Your task to perform on an android device: Go to ESPN.com Image 0: 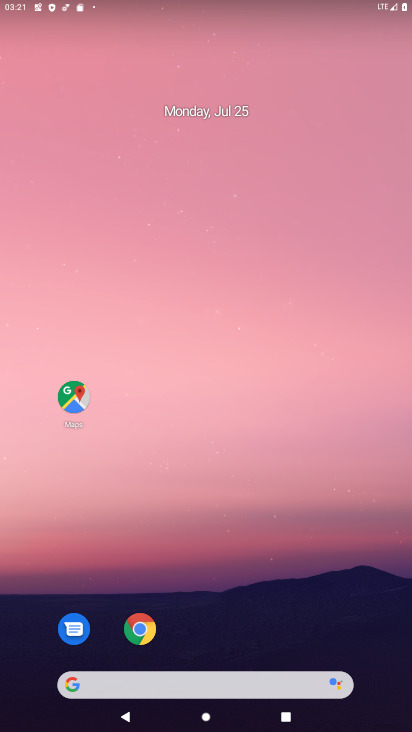
Step 0: click (132, 622)
Your task to perform on an android device: Go to ESPN.com Image 1: 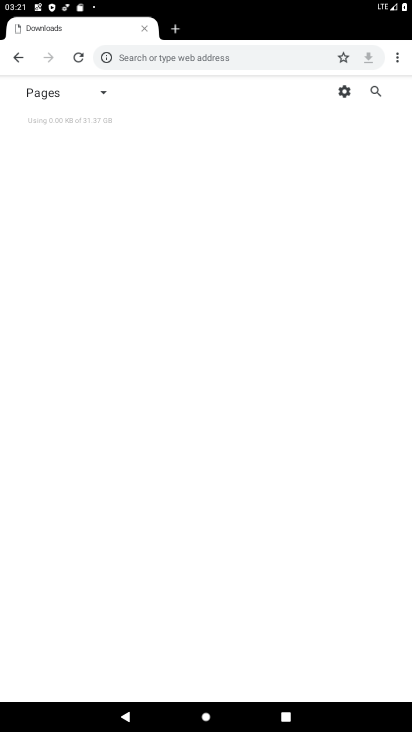
Step 1: click (142, 32)
Your task to perform on an android device: Go to ESPN.com Image 2: 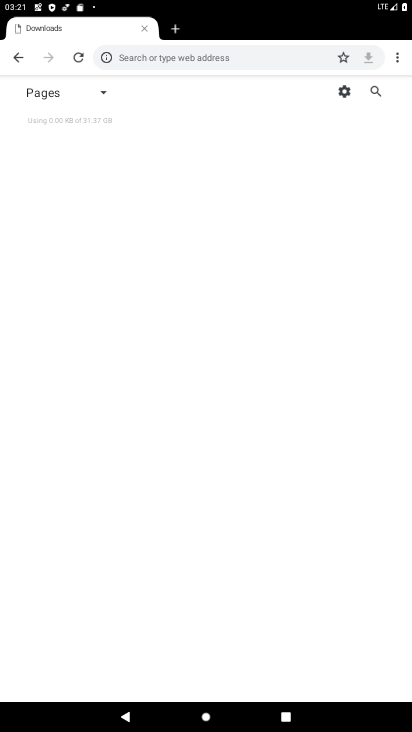
Step 2: click (16, 55)
Your task to perform on an android device: Go to ESPN.com Image 3: 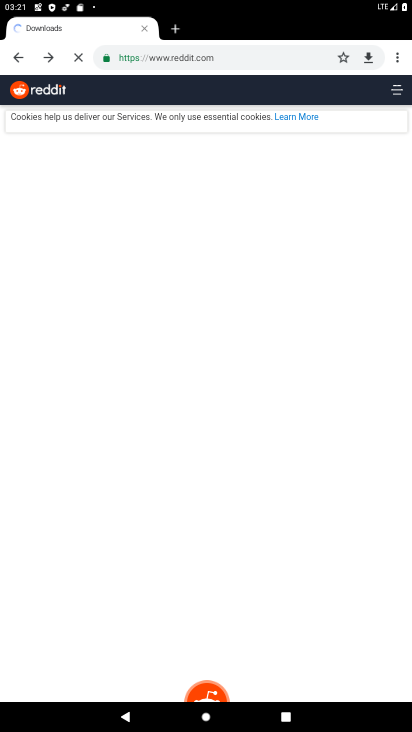
Step 3: click (16, 55)
Your task to perform on an android device: Go to ESPN.com Image 4: 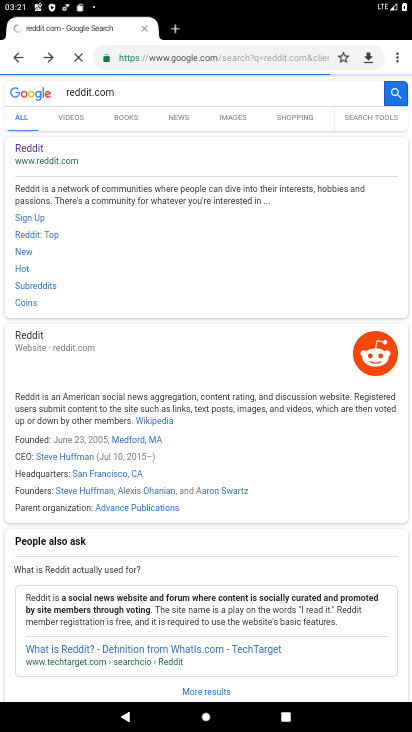
Step 4: click (16, 55)
Your task to perform on an android device: Go to ESPN.com Image 5: 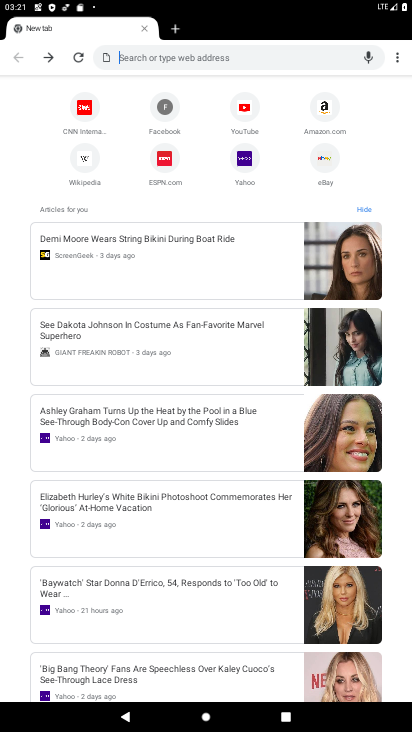
Step 5: click (169, 163)
Your task to perform on an android device: Go to ESPN.com Image 6: 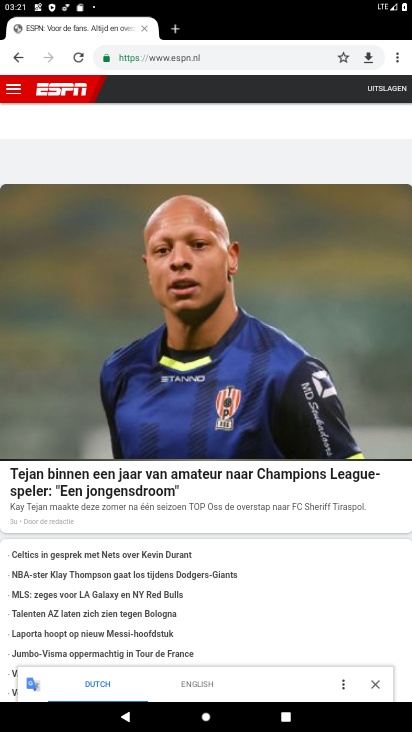
Step 6: task complete